Your task to perform on an android device: Go to Reddit.com Image 0: 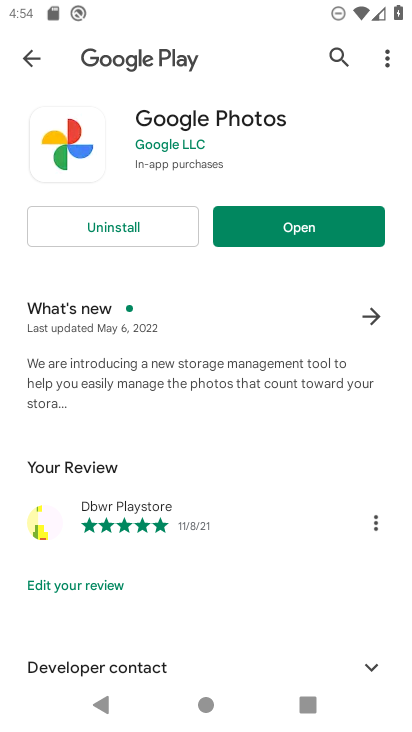
Step 0: press home button
Your task to perform on an android device: Go to Reddit.com Image 1: 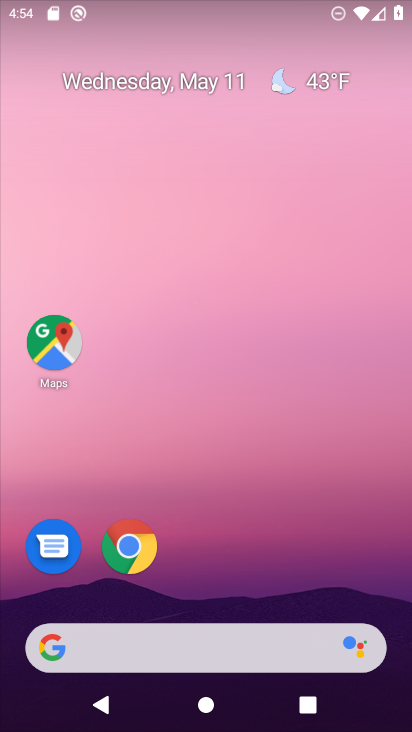
Step 1: drag from (230, 624) to (242, 262)
Your task to perform on an android device: Go to Reddit.com Image 2: 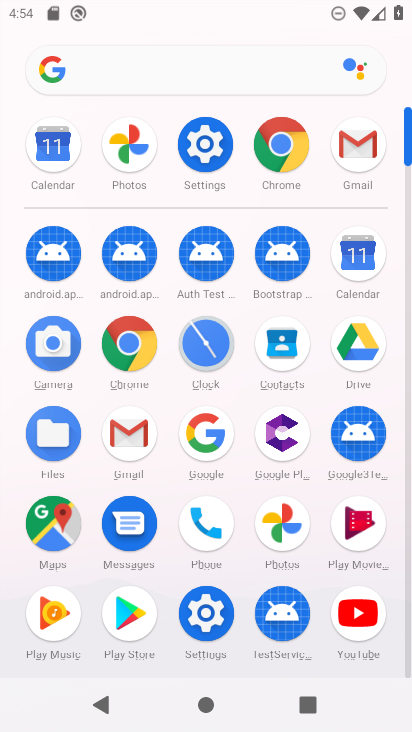
Step 2: click (204, 436)
Your task to perform on an android device: Go to Reddit.com Image 3: 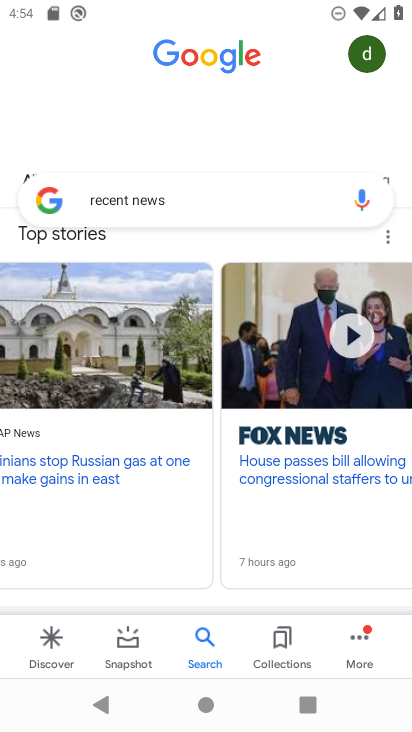
Step 3: click (194, 199)
Your task to perform on an android device: Go to Reddit.com Image 4: 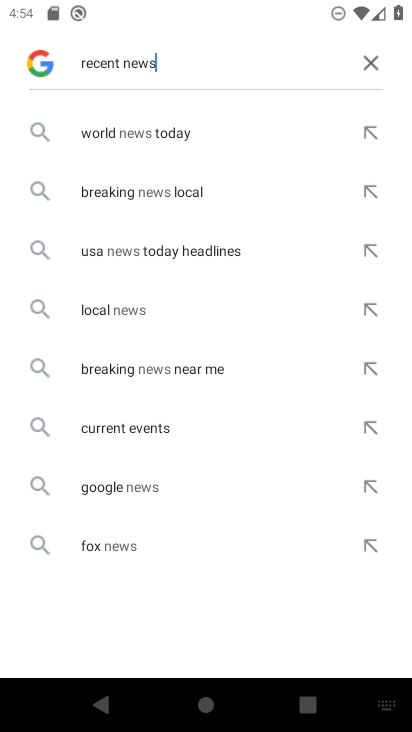
Step 4: click (371, 65)
Your task to perform on an android device: Go to Reddit.com Image 5: 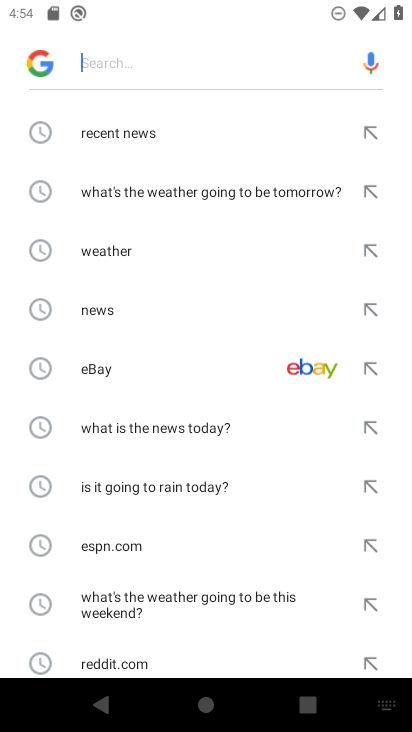
Step 5: click (143, 663)
Your task to perform on an android device: Go to Reddit.com Image 6: 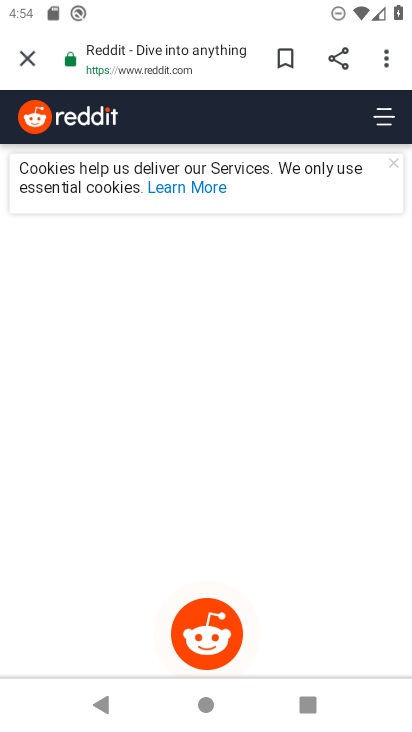
Step 6: task complete